Your task to perform on an android device: change timer sound Image 0: 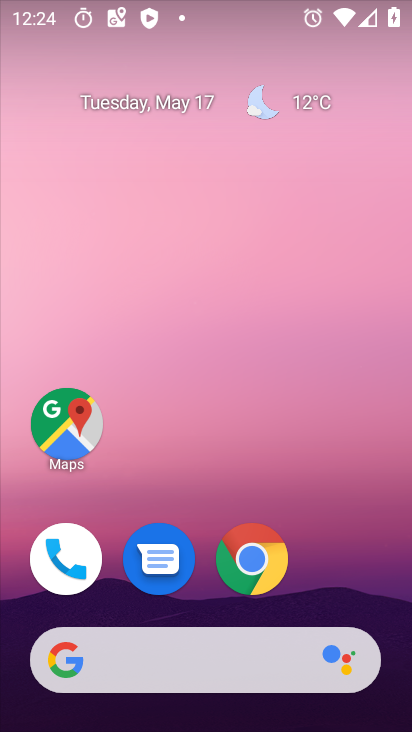
Step 0: drag from (338, 527) to (317, 66)
Your task to perform on an android device: change timer sound Image 1: 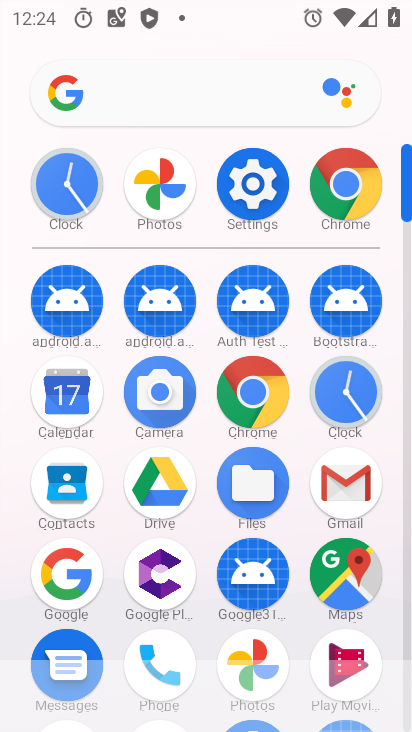
Step 1: click (257, 165)
Your task to perform on an android device: change timer sound Image 2: 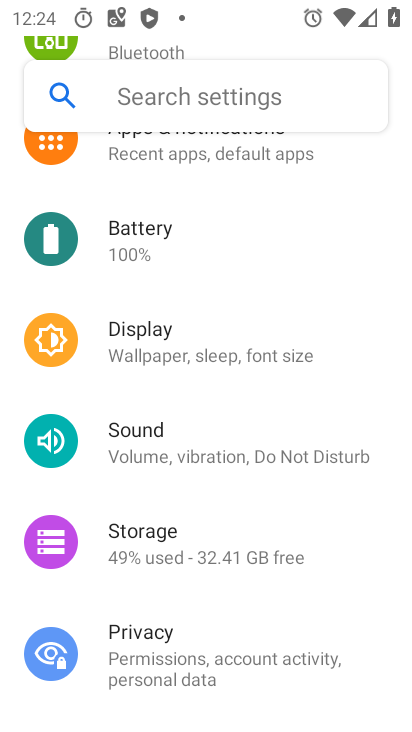
Step 2: press home button
Your task to perform on an android device: change timer sound Image 3: 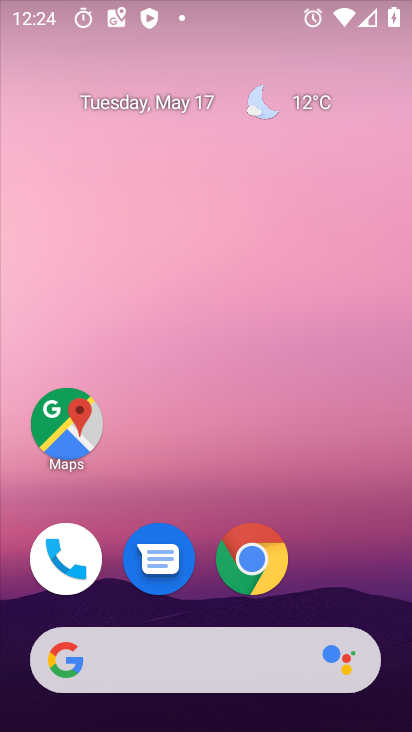
Step 3: drag from (348, 508) to (307, 68)
Your task to perform on an android device: change timer sound Image 4: 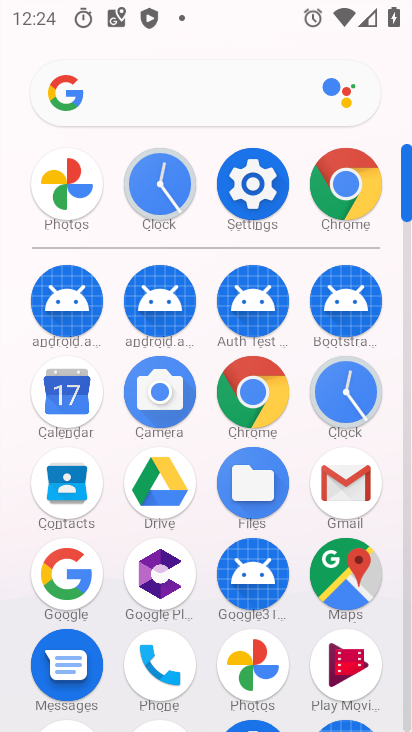
Step 4: click (334, 406)
Your task to perform on an android device: change timer sound Image 5: 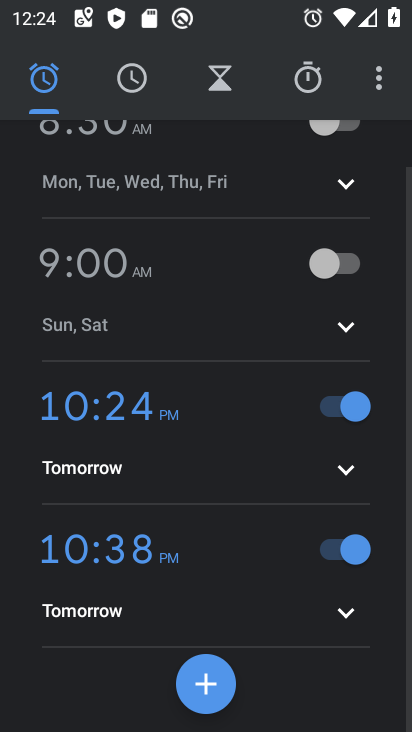
Step 5: click (373, 68)
Your task to perform on an android device: change timer sound Image 6: 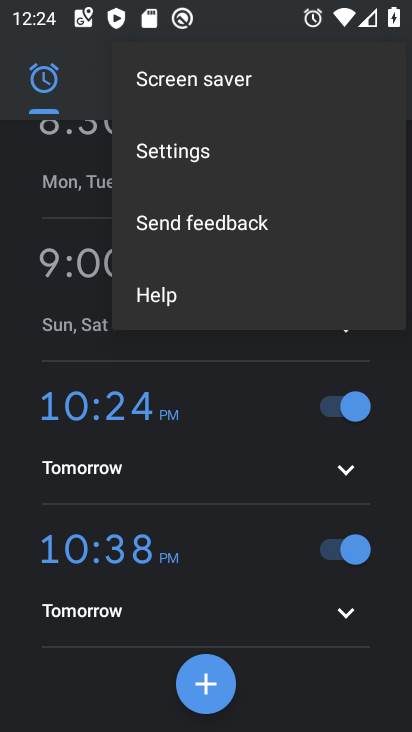
Step 6: click (192, 147)
Your task to perform on an android device: change timer sound Image 7: 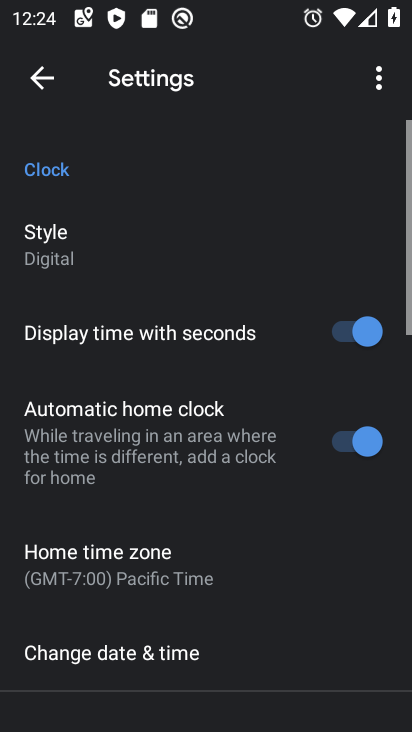
Step 7: drag from (211, 585) to (248, 81)
Your task to perform on an android device: change timer sound Image 8: 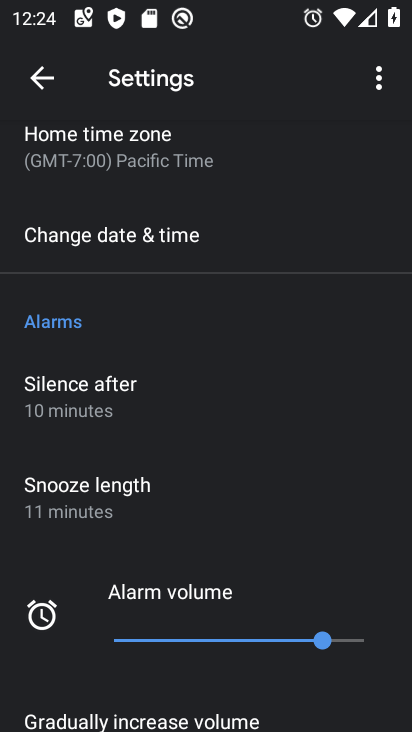
Step 8: drag from (191, 484) to (207, 218)
Your task to perform on an android device: change timer sound Image 9: 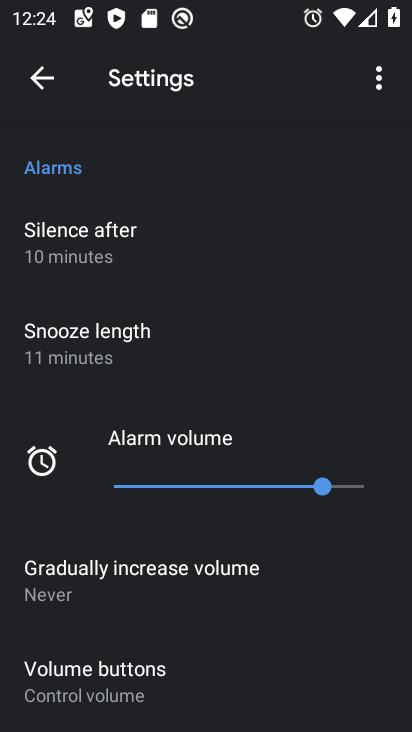
Step 9: drag from (203, 596) to (252, 206)
Your task to perform on an android device: change timer sound Image 10: 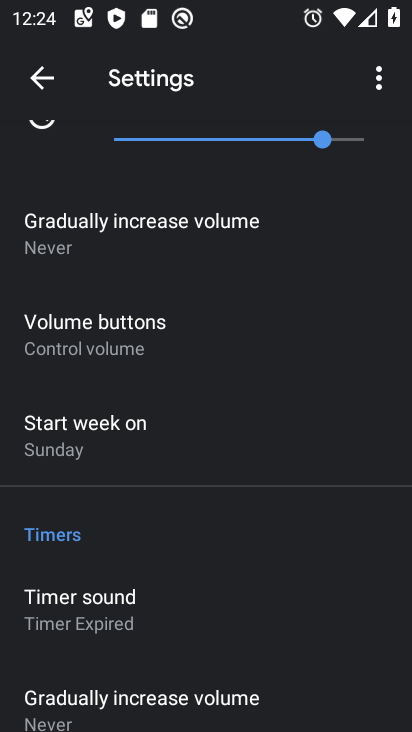
Step 10: click (120, 603)
Your task to perform on an android device: change timer sound Image 11: 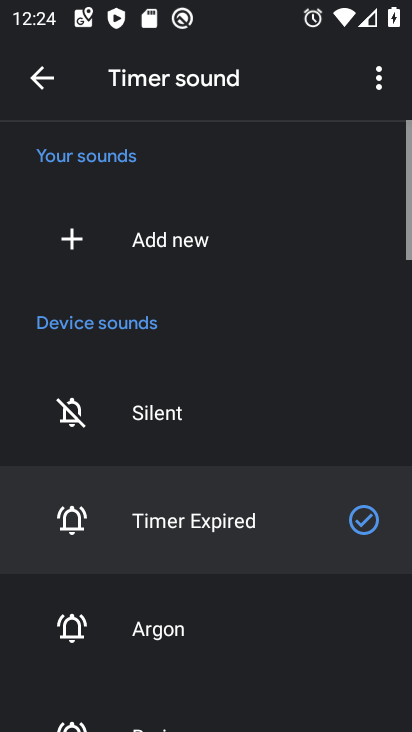
Step 11: click (174, 618)
Your task to perform on an android device: change timer sound Image 12: 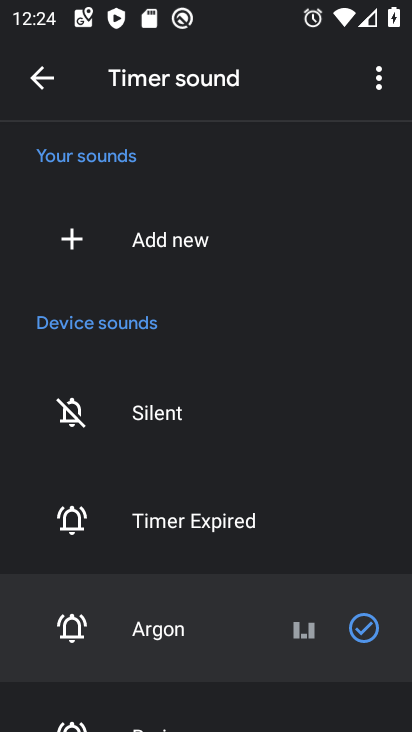
Step 12: task complete